Your task to perform on an android device: Search for pizza restaurants on Maps Image 0: 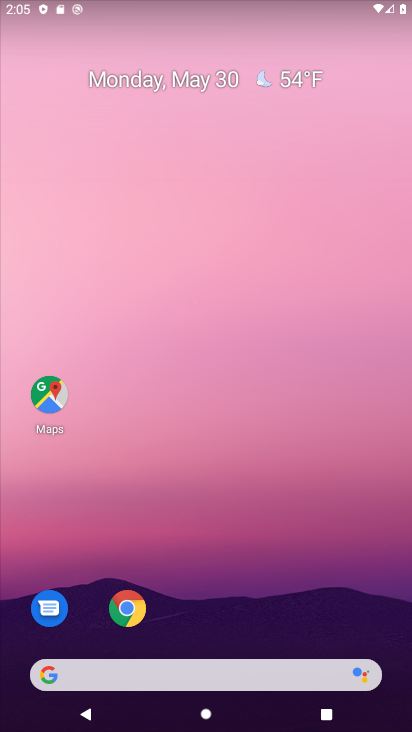
Step 0: press home button
Your task to perform on an android device: Search for pizza restaurants on Maps Image 1: 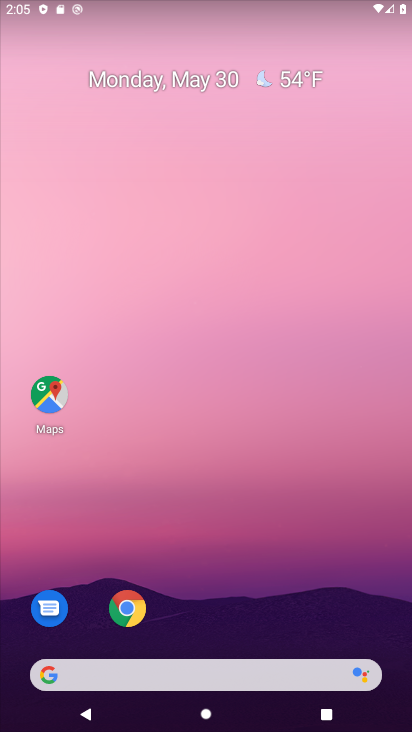
Step 1: click (50, 395)
Your task to perform on an android device: Search for pizza restaurants on Maps Image 2: 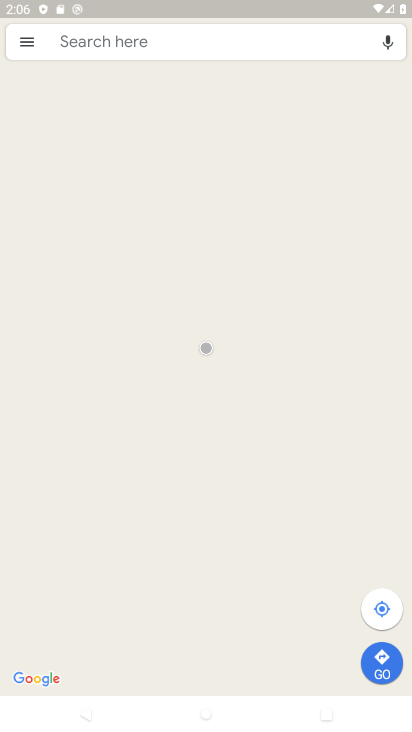
Step 2: click (209, 45)
Your task to perform on an android device: Search for pizza restaurants on Maps Image 3: 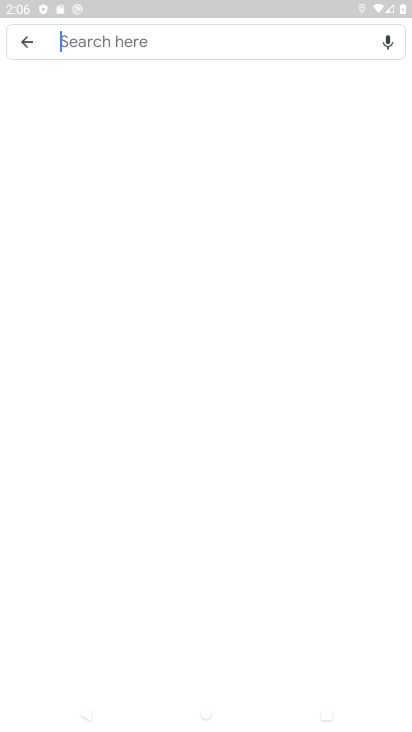
Step 3: click (203, 35)
Your task to perform on an android device: Search for pizza restaurants on Maps Image 4: 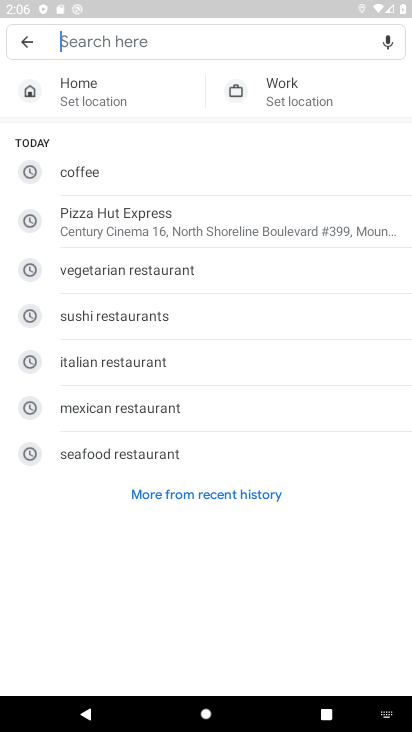
Step 4: type "pizza restaurants"
Your task to perform on an android device: Search for pizza restaurants on Maps Image 5: 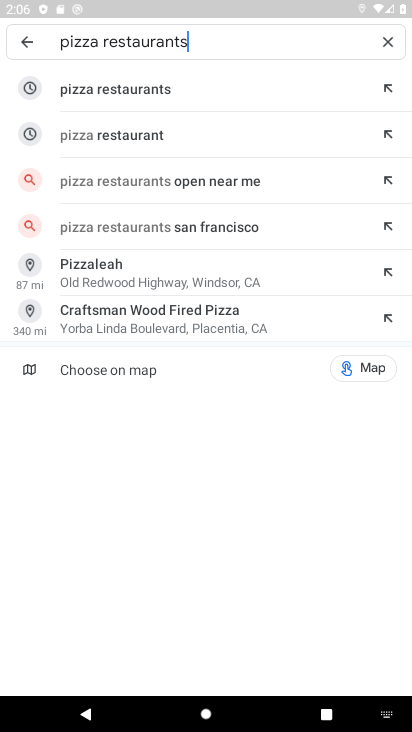
Step 5: click (236, 82)
Your task to perform on an android device: Search for pizza restaurants on Maps Image 6: 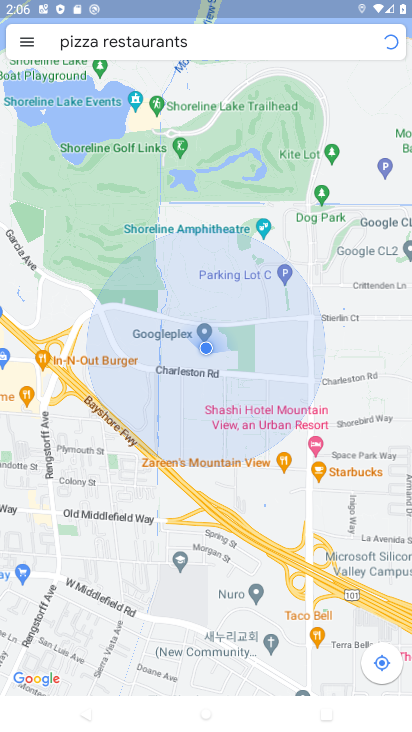
Step 6: task complete